Your task to perform on an android device: check out phone information Image 0: 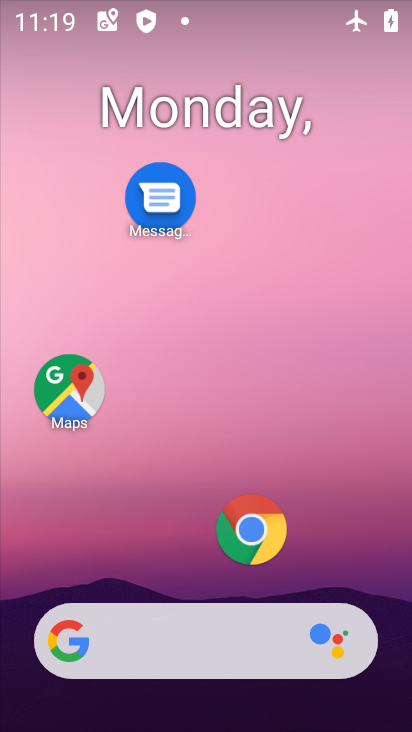
Step 0: drag from (160, 564) to (322, 121)
Your task to perform on an android device: check out phone information Image 1: 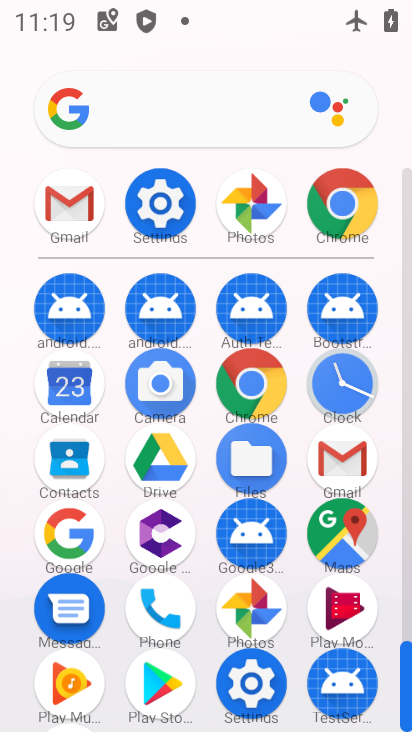
Step 1: click (249, 686)
Your task to perform on an android device: check out phone information Image 2: 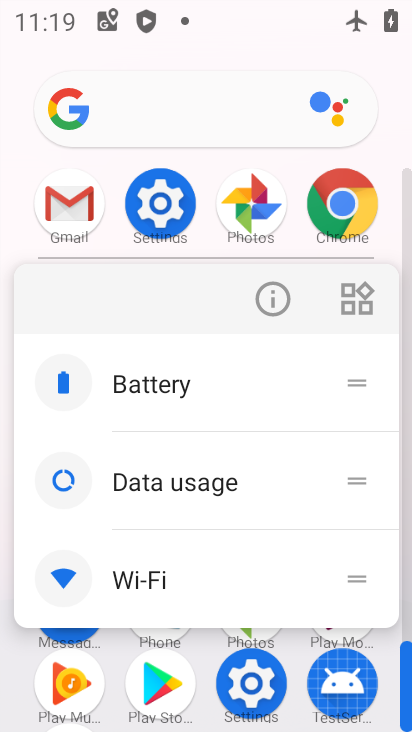
Step 2: click (179, 207)
Your task to perform on an android device: check out phone information Image 3: 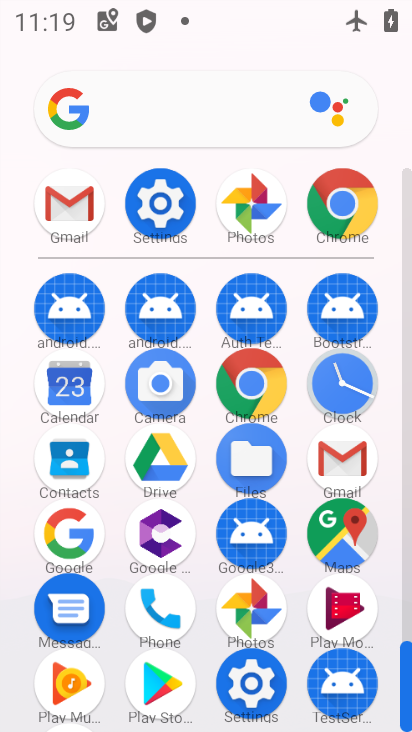
Step 3: click (179, 214)
Your task to perform on an android device: check out phone information Image 4: 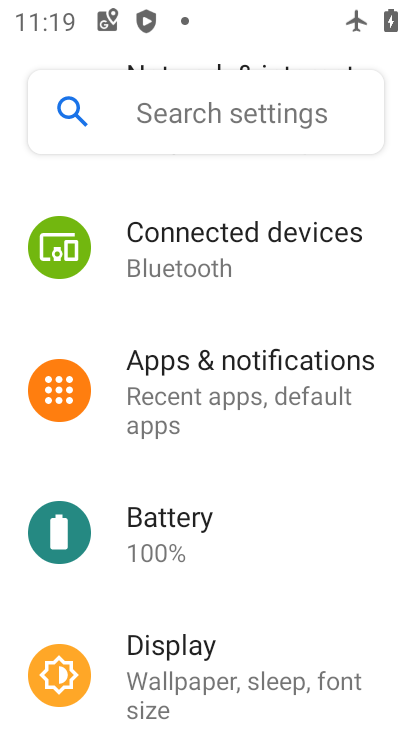
Step 4: drag from (171, 662) to (255, 95)
Your task to perform on an android device: check out phone information Image 5: 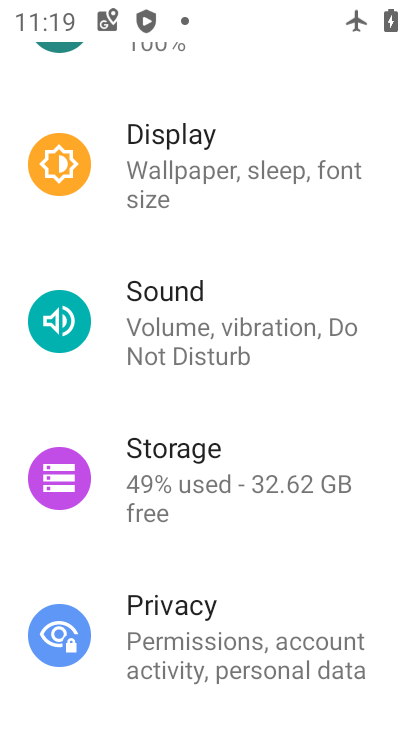
Step 5: drag from (239, 667) to (259, 54)
Your task to perform on an android device: check out phone information Image 6: 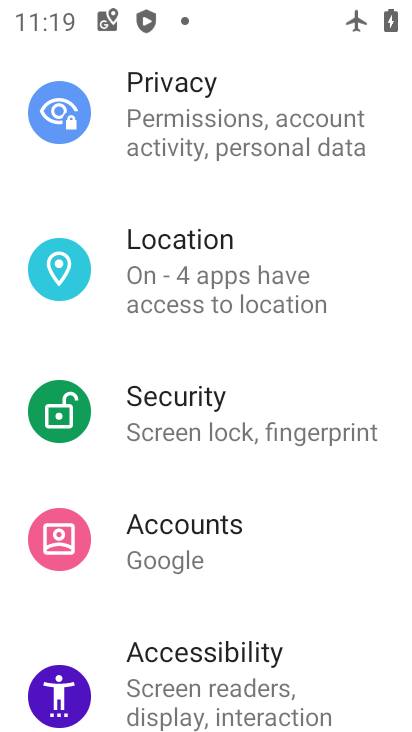
Step 6: drag from (263, 625) to (322, 44)
Your task to perform on an android device: check out phone information Image 7: 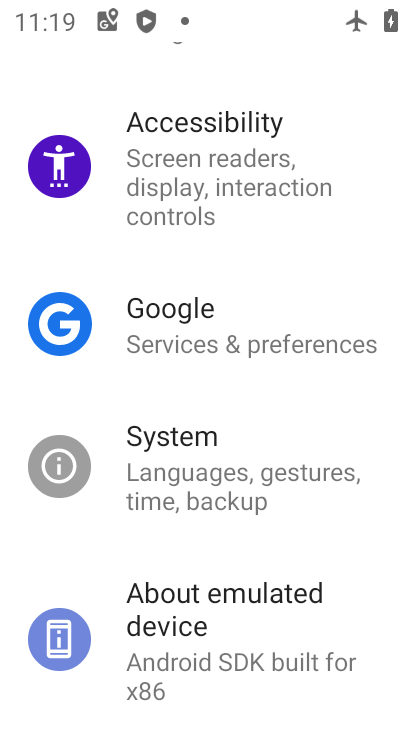
Step 7: drag from (242, 616) to (251, 90)
Your task to perform on an android device: check out phone information Image 8: 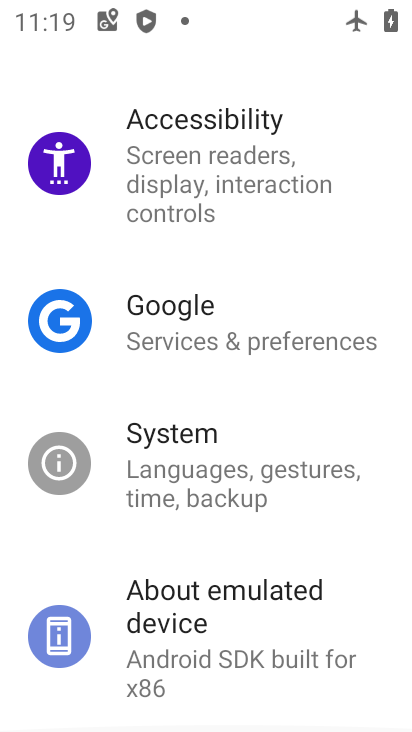
Step 8: click (223, 652)
Your task to perform on an android device: check out phone information Image 9: 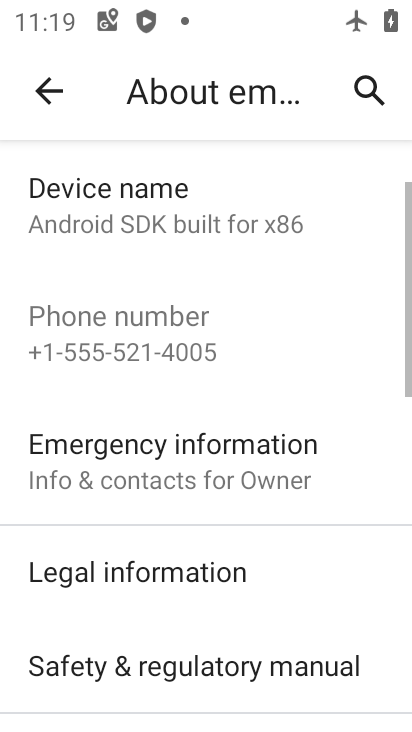
Step 9: task complete